Your task to perform on an android device: Add usb-b to the cart on costco, then select checkout. Image 0: 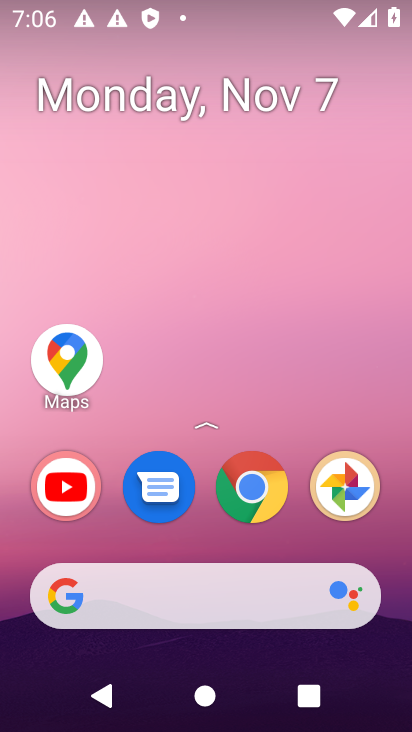
Step 0: click (267, 493)
Your task to perform on an android device: Add usb-b to the cart on costco, then select checkout. Image 1: 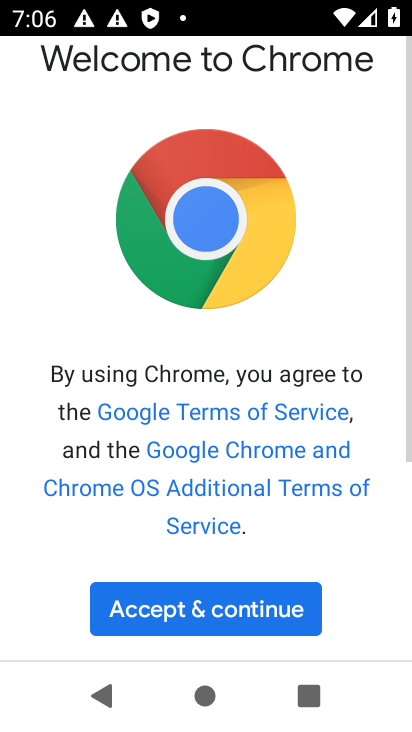
Step 1: click (238, 619)
Your task to perform on an android device: Add usb-b to the cart on costco, then select checkout. Image 2: 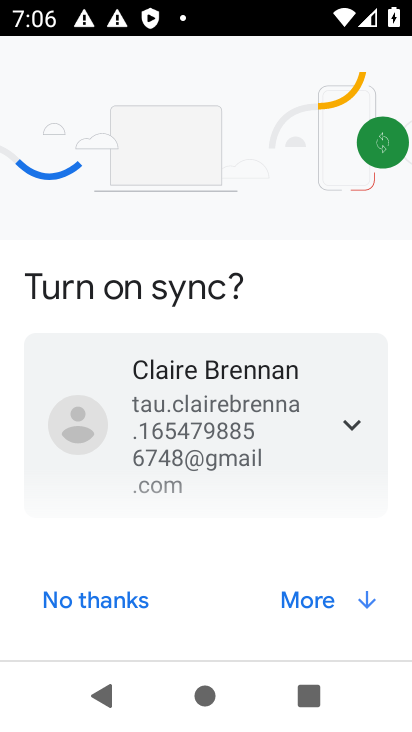
Step 2: click (325, 601)
Your task to perform on an android device: Add usb-b to the cart on costco, then select checkout. Image 3: 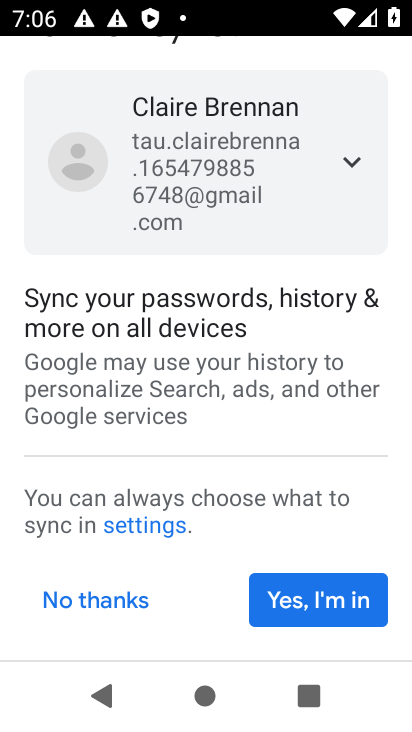
Step 3: click (298, 603)
Your task to perform on an android device: Add usb-b to the cart on costco, then select checkout. Image 4: 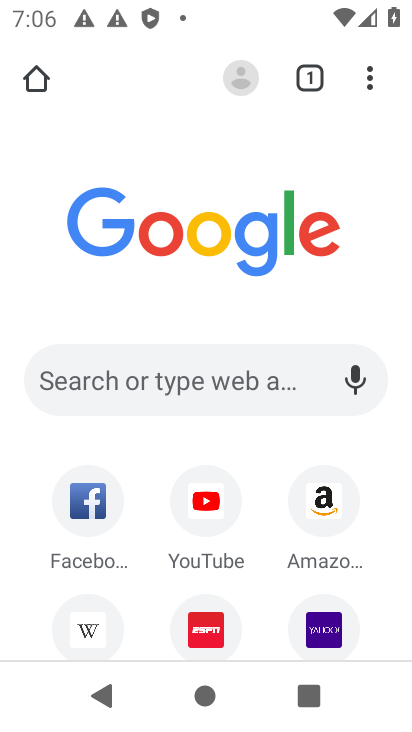
Step 4: click (174, 366)
Your task to perform on an android device: Add usb-b to the cart on costco, then select checkout. Image 5: 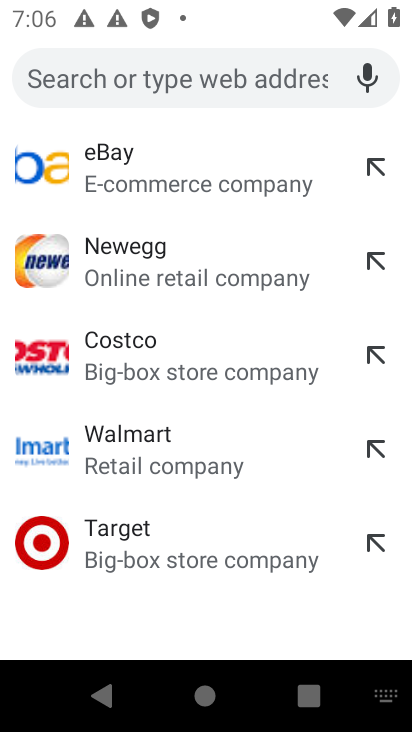
Step 5: type "usb-b"
Your task to perform on an android device: Add usb-b to the cart on costco, then select checkout. Image 6: 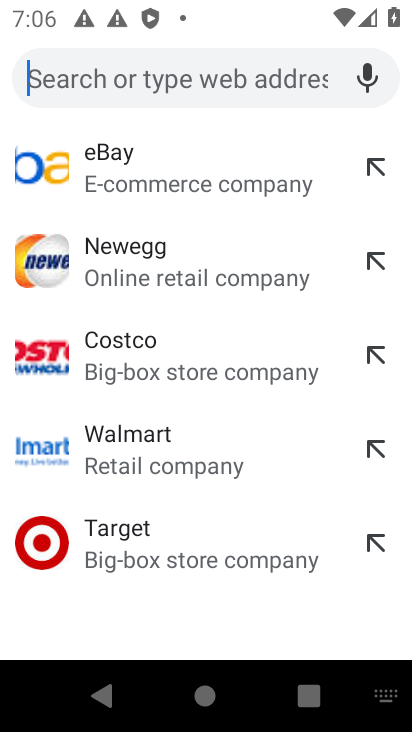
Step 6: click (115, 337)
Your task to perform on an android device: Add usb-b to the cart on costco, then select checkout. Image 7: 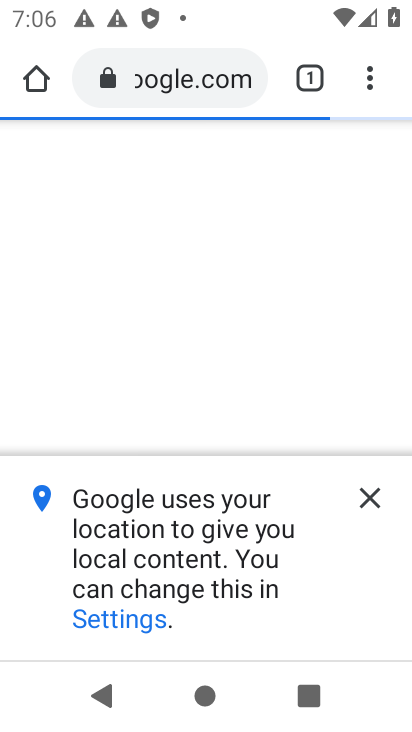
Step 7: click (374, 489)
Your task to perform on an android device: Add usb-b to the cart on costco, then select checkout. Image 8: 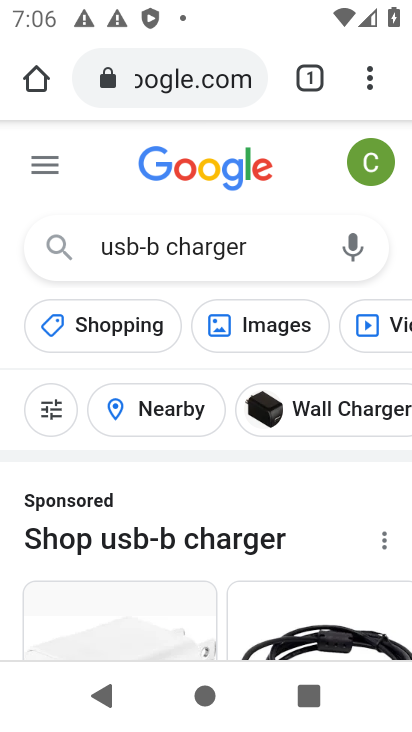
Step 8: click (38, 80)
Your task to perform on an android device: Add usb-b to the cart on costco, then select checkout. Image 9: 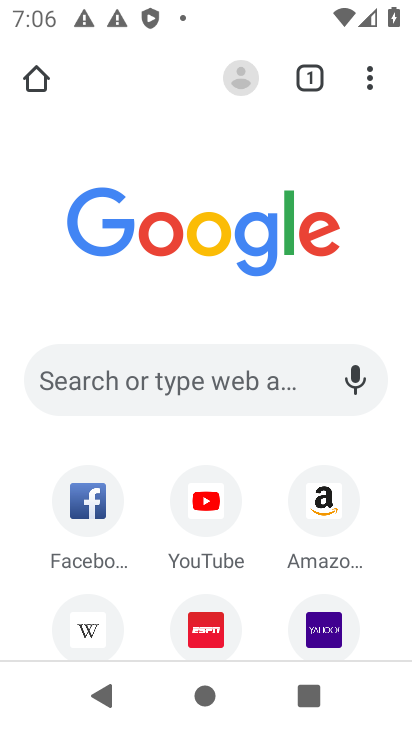
Step 9: click (239, 375)
Your task to perform on an android device: Add usb-b to the cart on costco, then select checkout. Image 10: 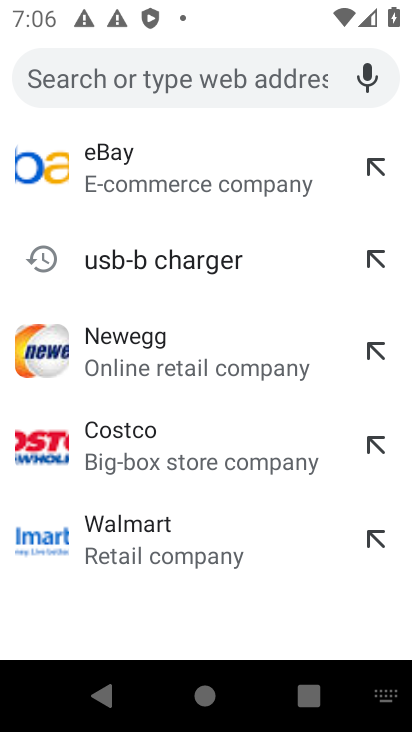
Step 10: click (145, 428)
Your task to perform on an android device: Add usb-b to the cart on costco, then select checkout. Image 11: 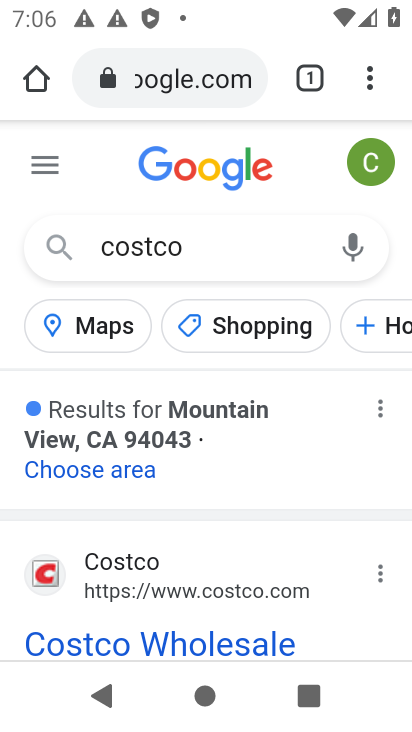
Step 11: click (203, 586)
Your task to perform on an android device: Add usb-b to the cart on costco, then select checkout. Image 12: 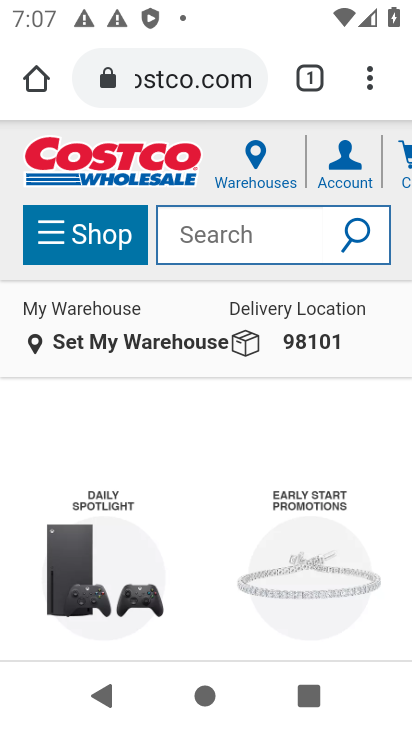
Step 12: click (254, 240)
Your task to perform on an android device: Add usb-b to the cart on costco, then select checkout. Image 13: 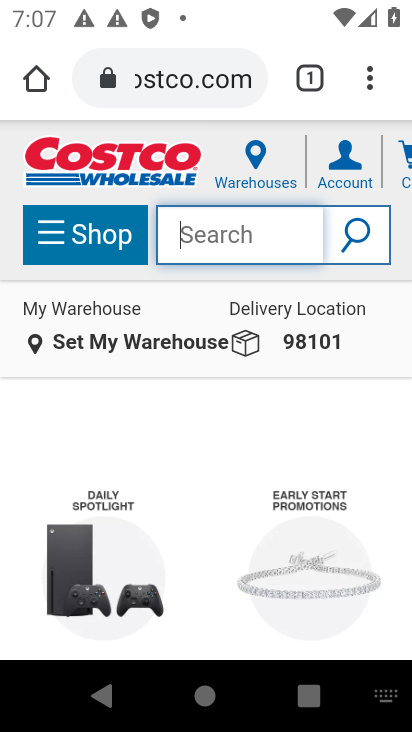
Step 13: type "usb-b"
Your task to perform on an android device: Add usb-b to the cart on costco, then select checkout. Image 14: 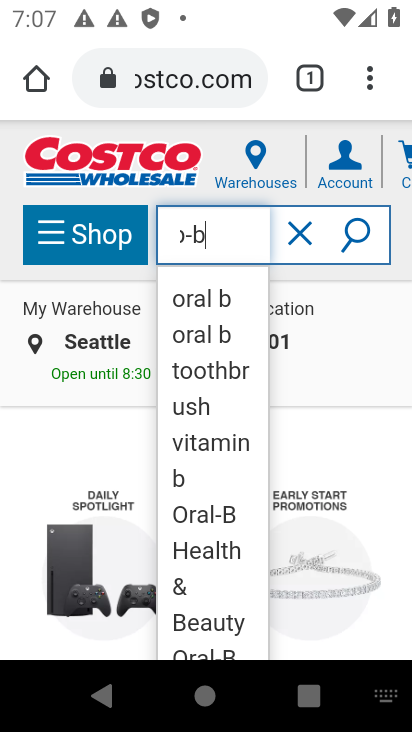
Step 14: click (179, 480)
Your task to perform on an android device: Add usb-b to the cart on costco, then select checkout. Image 15: 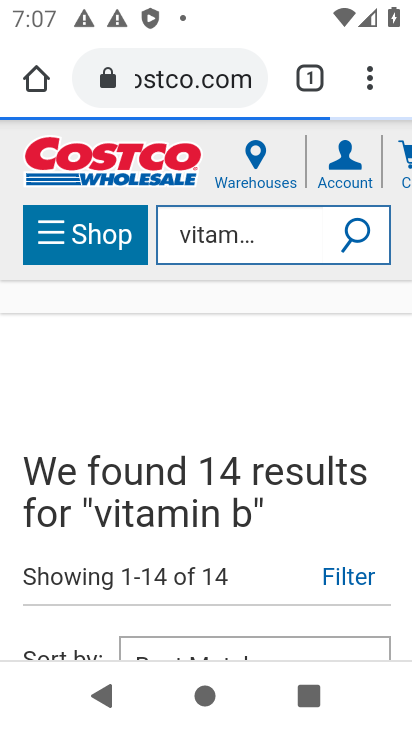
Step 15: drag from (281, 478) to (332, 233)
Your task to perform on an android device: Add usb-b to the cart on costco, then select checkout. Image 16: 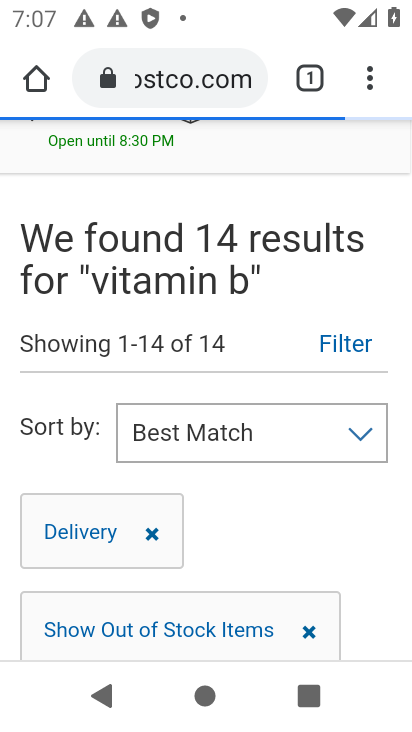
Step 16: drag from (286, 505) to (396, 216)
Your task to perform on an android device: Add usb-b to the cart on costco, then select checkout. Image 17: 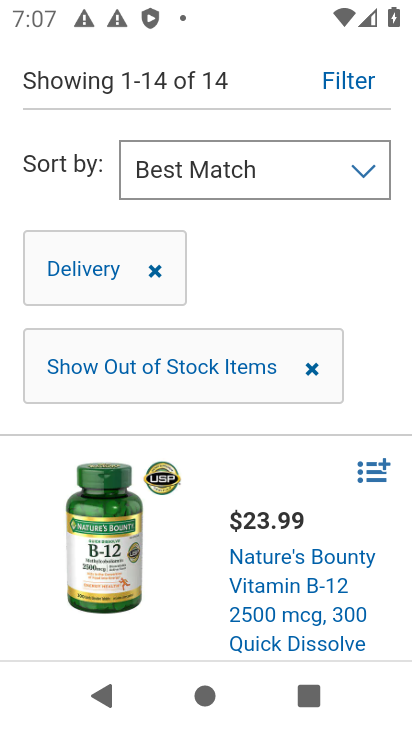
Step 17: drag from (254, 242) to (281, 619)
Your task to perform on an android device: Add usb-b to the cart on costco, then select checkout. Image 18: 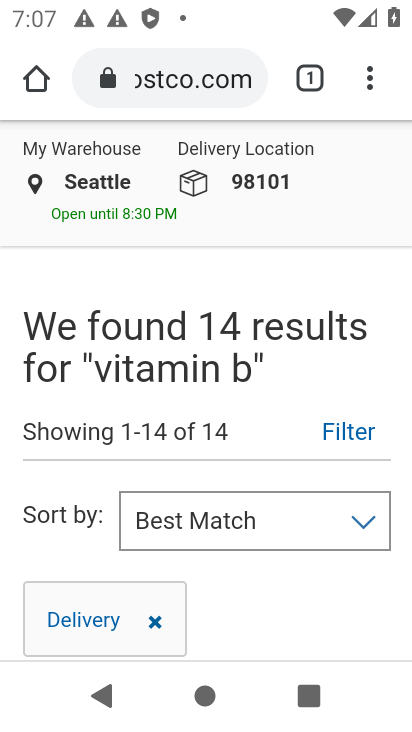
Step 18: drag from (314, 269) to (347, 655)
Your task to perform on an android device: Add usb-b to the cart on costco, then select checkout. Image 19: 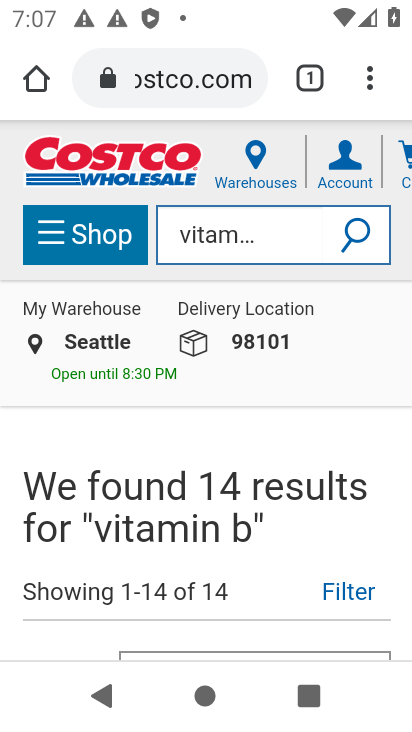
Step 19: click (272, 228)
Your task to perform on an android device: Add usb-b to the cart on costco, then select checkout. Image 20: 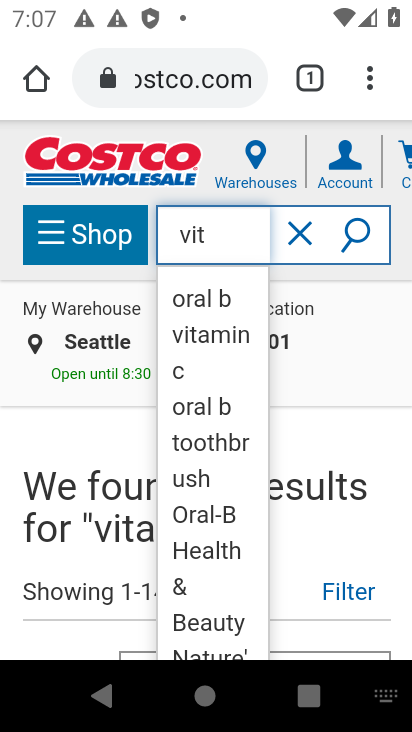
Step 20: click (304, 233)
Your task to perform on an android device: Add usb-b to the cart on costco, then select checkout. Image 21: 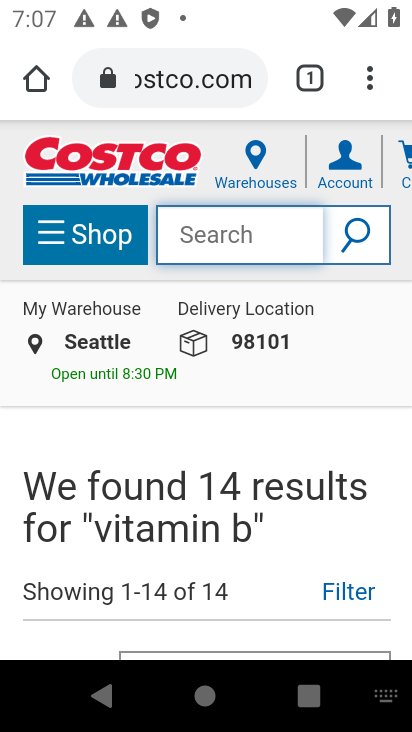
Step 21: type "usb-b"
Your task to perform on an android device: Add usb-b to the cart on costco, then select checkout. Image 22: 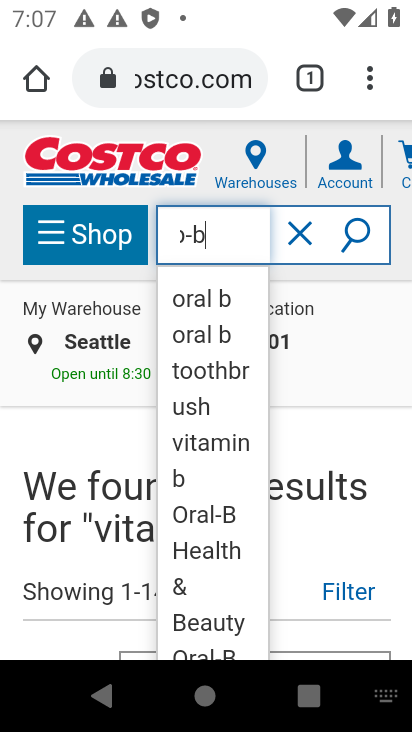
Step 22: press enter
Your task to perform on an android device: Add usb-b to the cart on costco, then select checkout. Image 23: 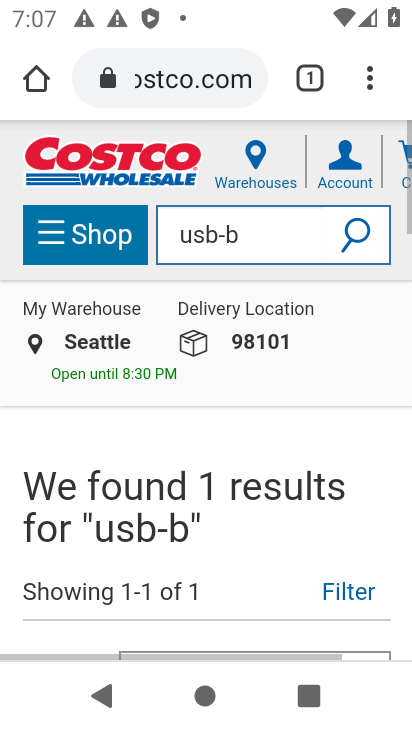
Step 23: task complete